Your task to perform on an android device: Search for "logitech g pro" on amazon, select the first entry, and add it to the cart. Image 0: 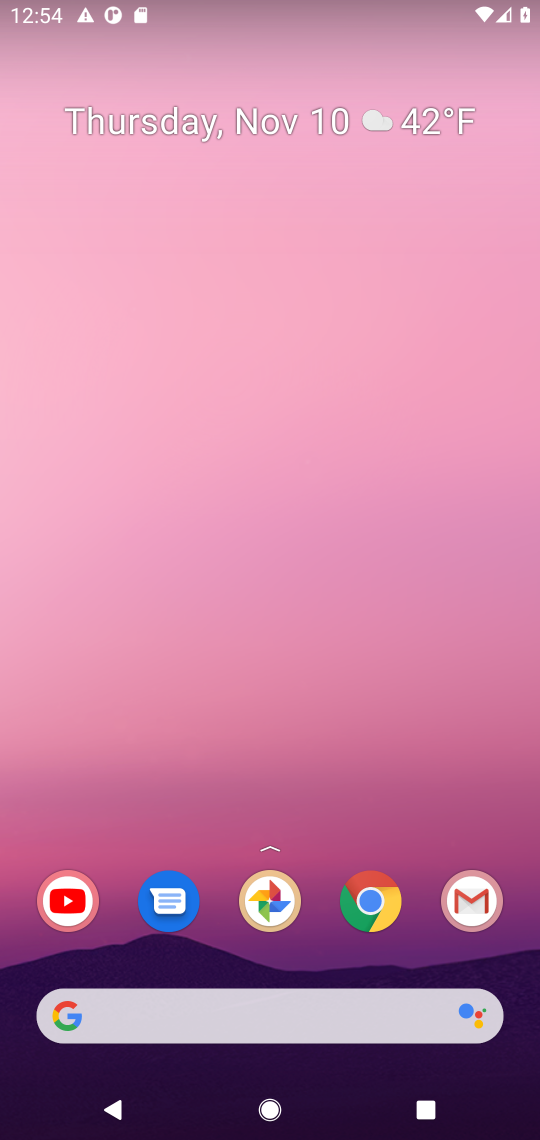
Step 0: drag from (269, 826) to (230, 78)
Your task to perform on an android device: Search for "logitech g pro" on amazon, select the first entry, and add it to the cart. Image 1: 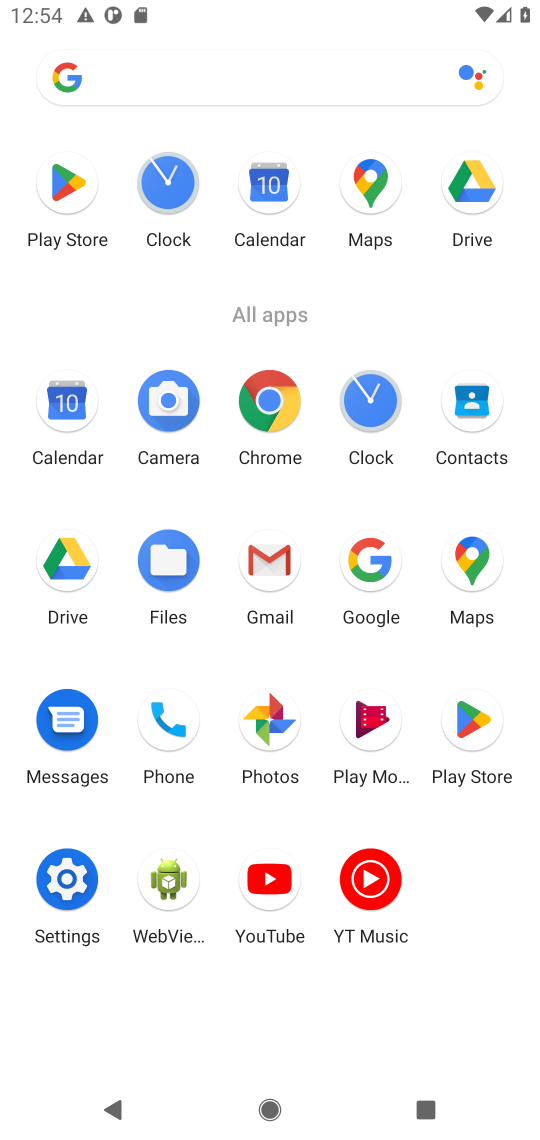
Step 1: click (264, 391)
Your task to perform on an android device: Search for "logitech g pro" on amazon, select the first entry, and add it to the cart. Image 2: 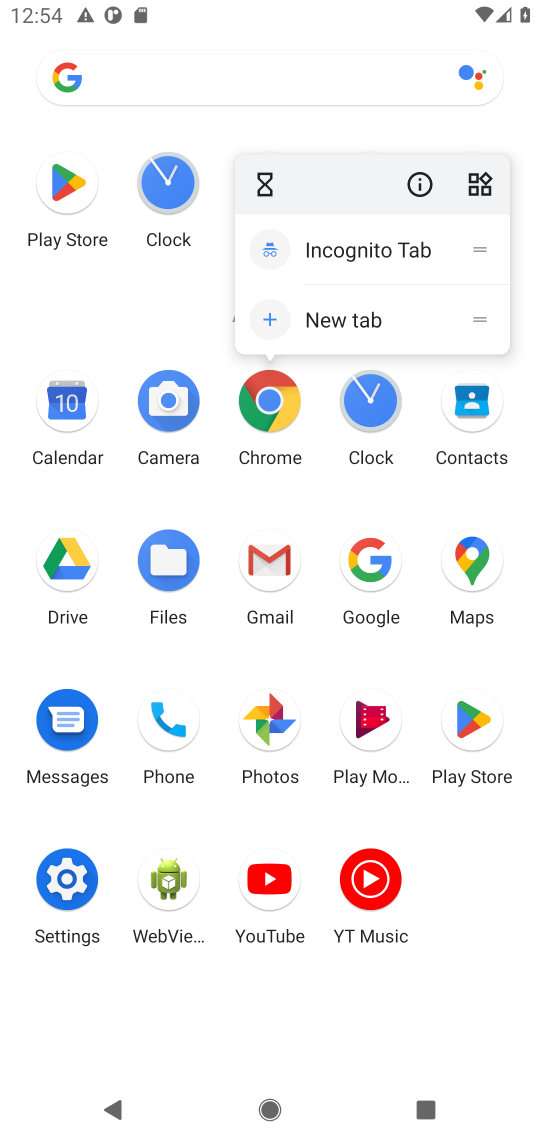
Step 2: click (272, 402)
Your task to perform on an android device: Search for "logitech g pro" on amazon, select the first entry, and add it to the cart. Image 3: 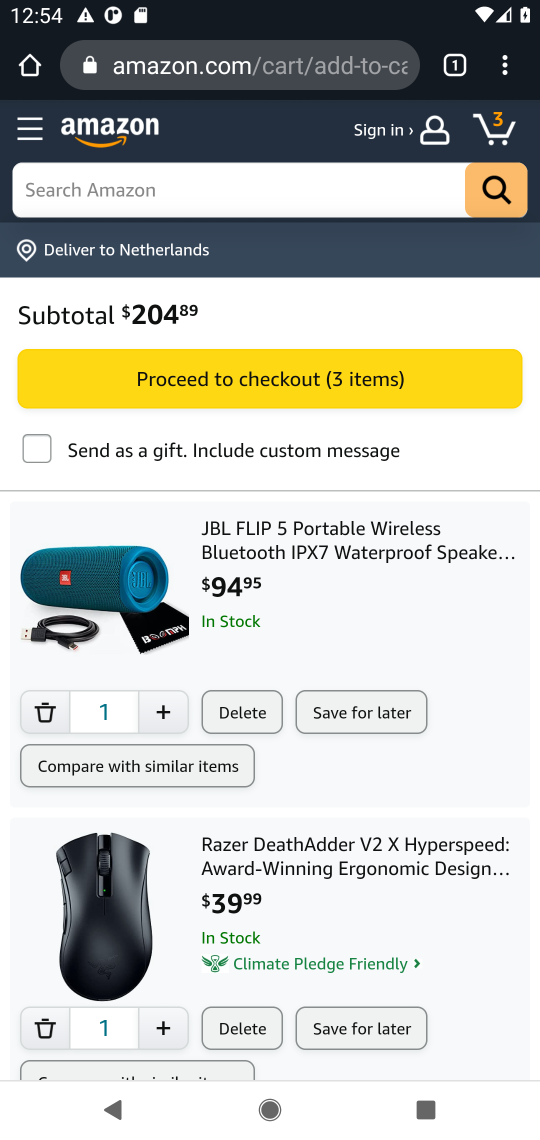
Step 3: click (208, 188)
Your task to perform on an android device: Search for "logitech g pro" on amazon, select the first entry, and add it to the cart. Image 4: 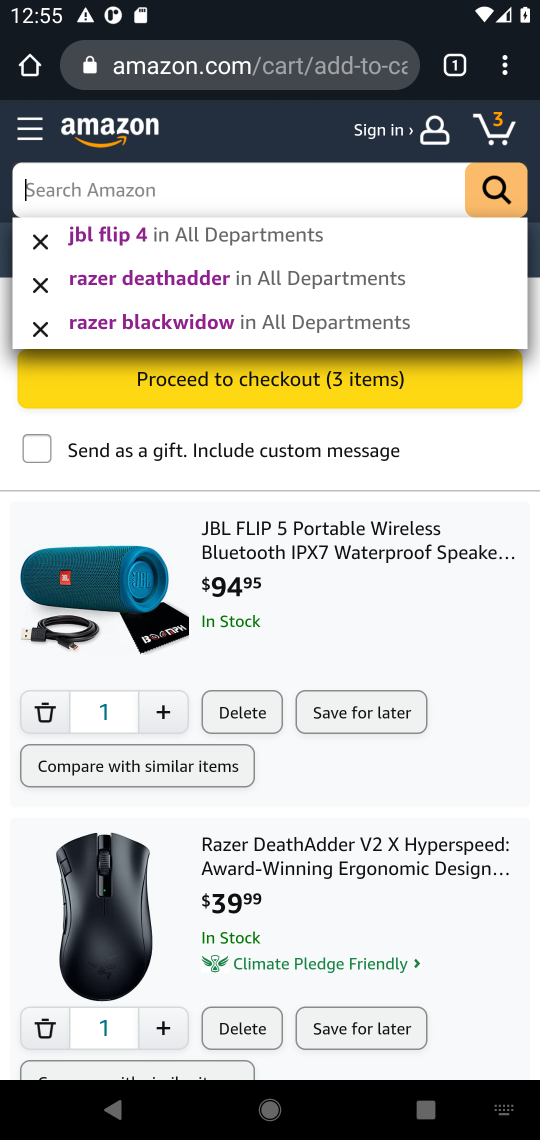
Step 4: type "logitech g pro"
Your task to perform on an android device: Search for "logitech g pro" on amazon, select the first entry, and add it to the cart. Image 5: 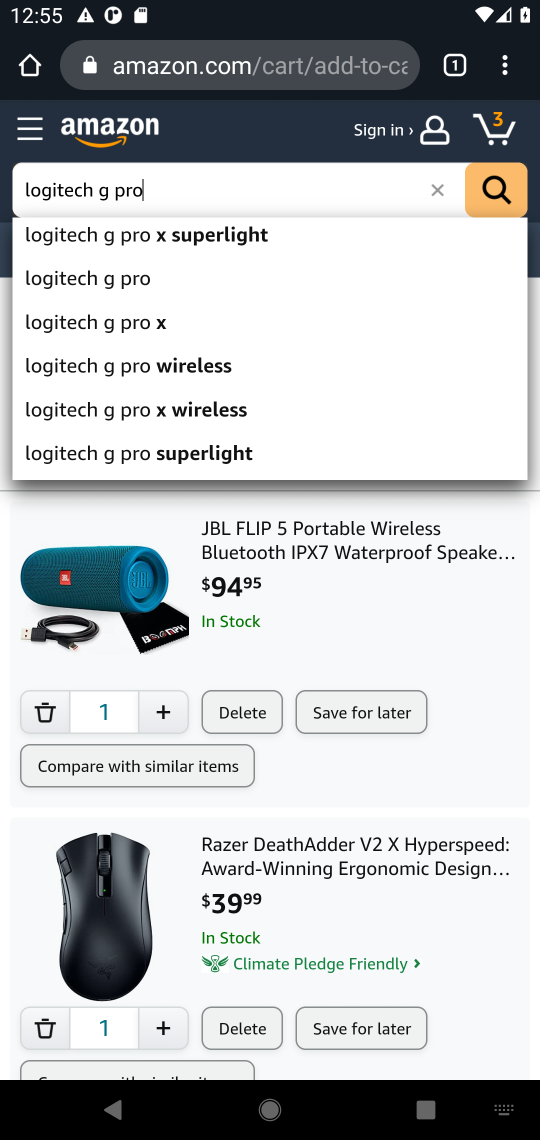
Step 5: press enter
Your task to perform on an android device: Search for "logitech g pro" on amazon, select the first entry, and add it to the cart. Image 6: 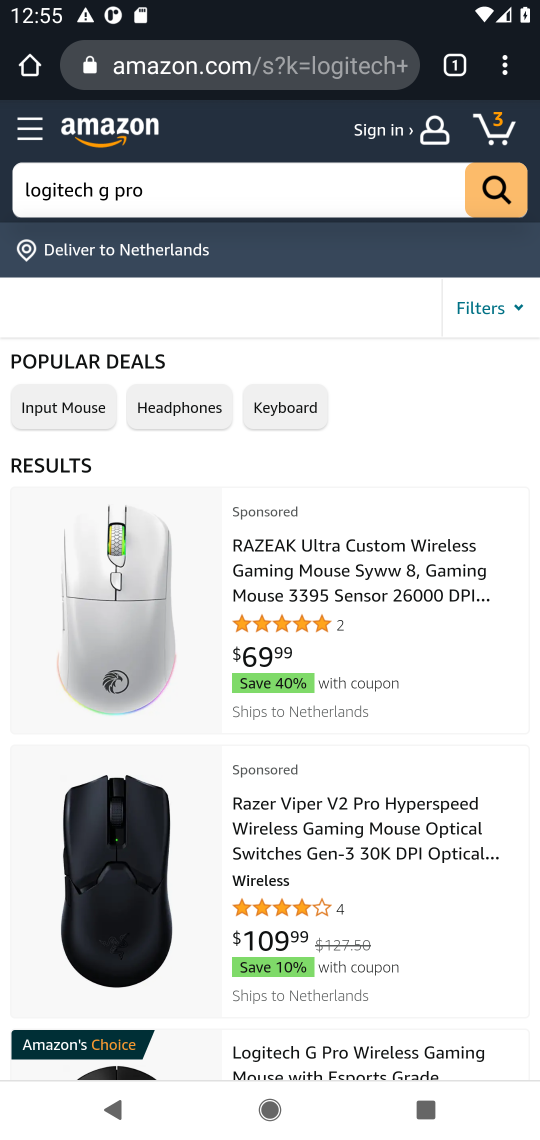
Step 6: click (260, 541)
Your task to perform on an android device: Search for "logitech g pro" on amazon, select the first entry, and add it to the cart. Image 7: 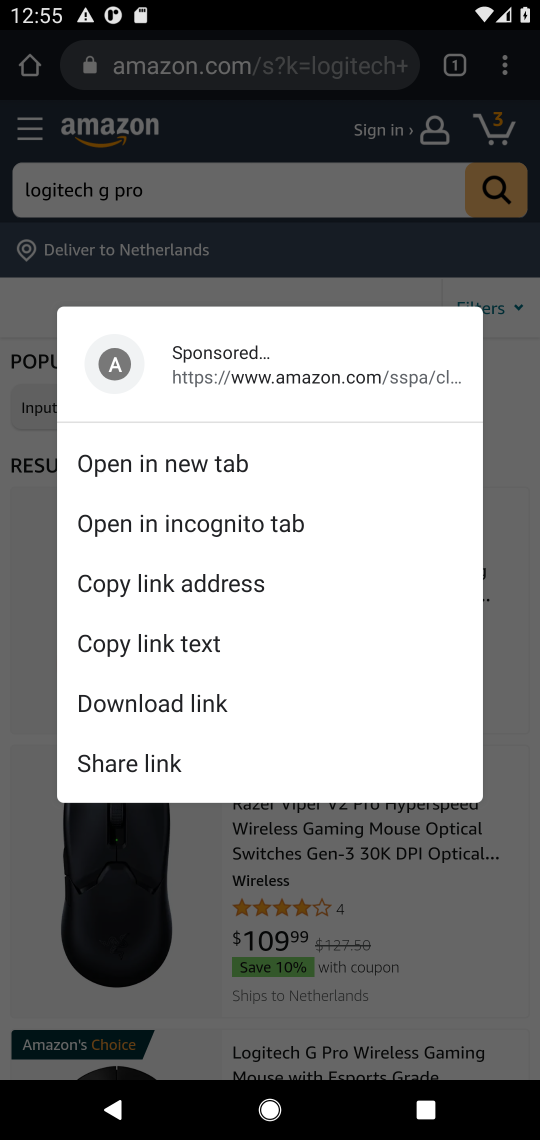
Step 7: click (17, 368)
Your task to perform on an android device: Search for "logitech g pro" on amazon, select the first entry, and add it to the cart. Image 8: 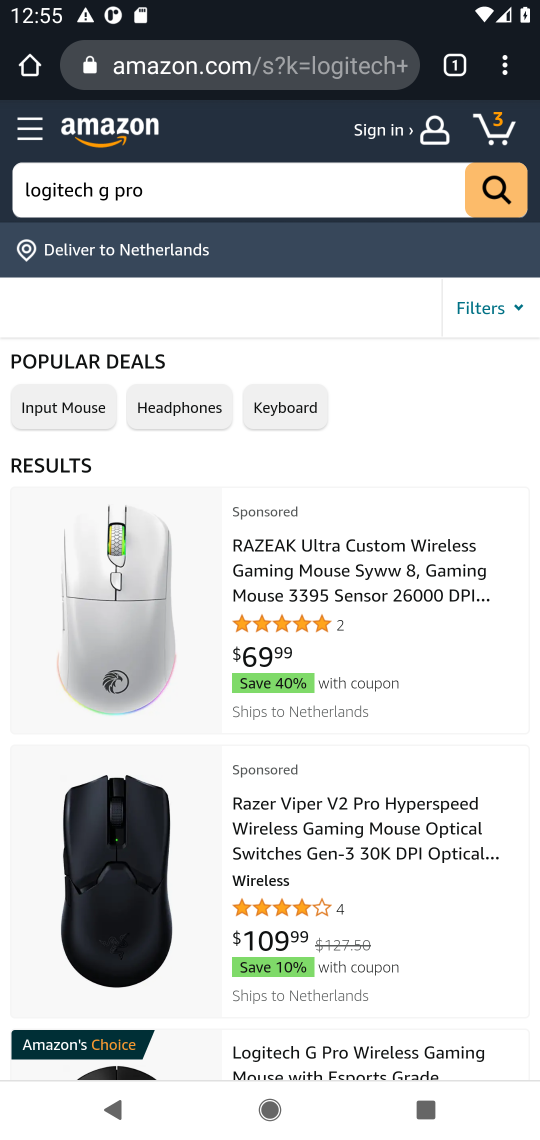
Step 8: click (360, 540)
Your task to perform on an android device: Search for "logitech g pro" on amazon, select the first entry, and add it to the cart. Image 9: 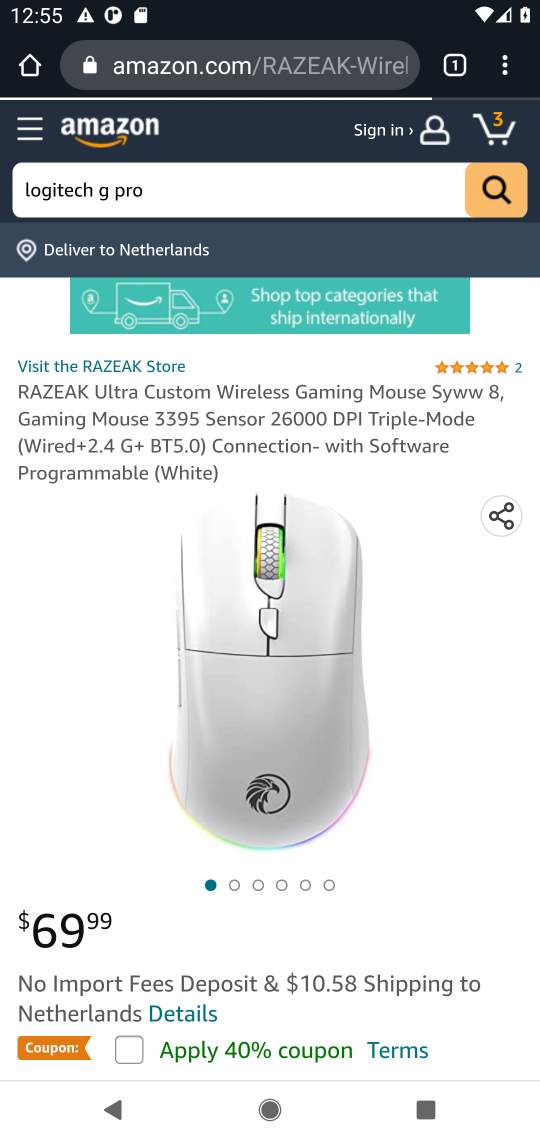
Step 9: drag from (341, 867) to (308, 440)
Your task to perform on an android device: Search for "logitech g pro" on amazon, select the first entry, and add it to the cart. Image 10: 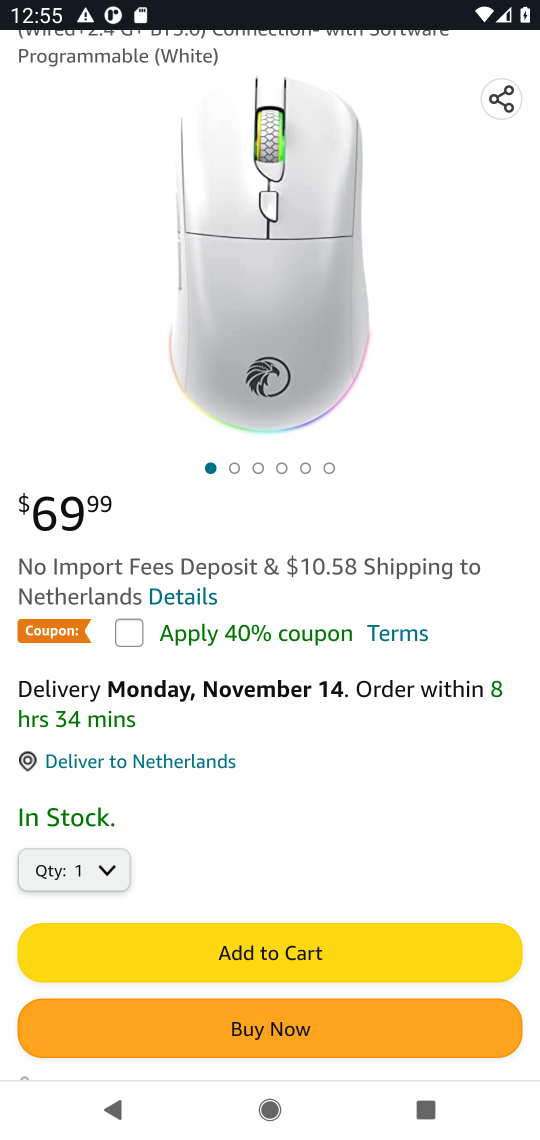
Step 10: click (233, 950)
Your task to perform on an android device: Search for "logitech g pro" on amazon, select the first entry, and add it to the cart. Image 11: 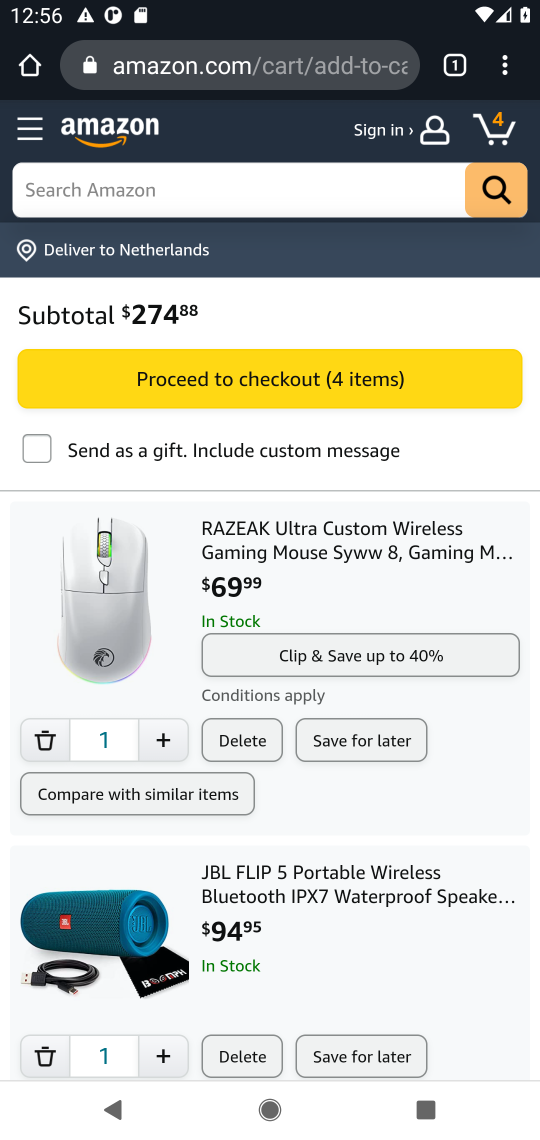
Step 11: click (86, 182)
Your task to perform on an android device: Search for "logitech g pro" on amazon, select the first entry, and add it to the cart. Image 12: 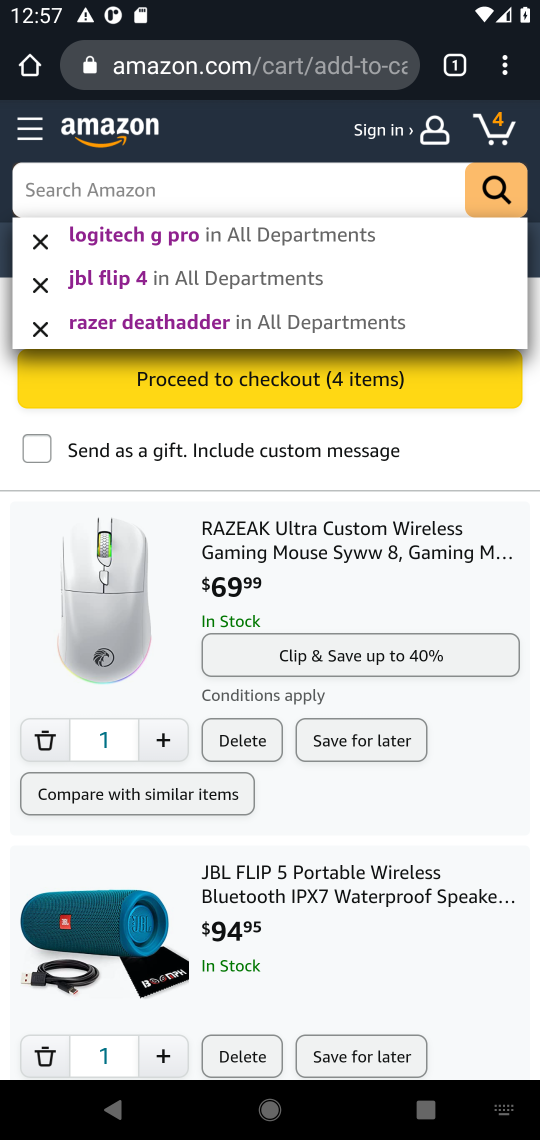
Step 12: type "logitech g pro"
Your task to perform on an android device: Search for "logitech g pro" on amazon, select the first entry, and add it to the cart. Image 13: 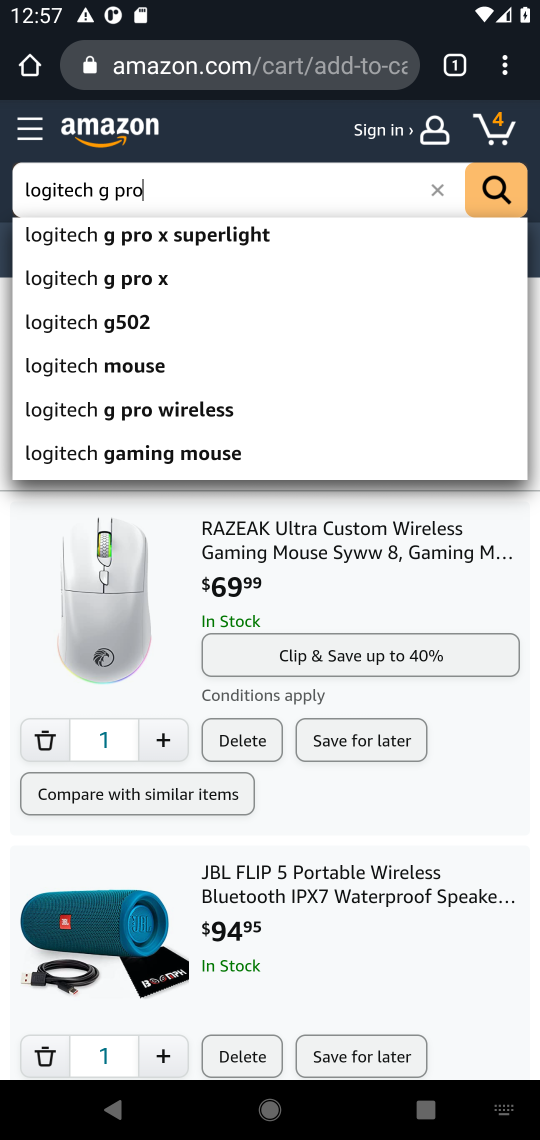
Step 13: press enter
Your task to perform on an android device: Search for "logitech g pro" on amazon, select the first entry, and add it to the cart. Image 14: 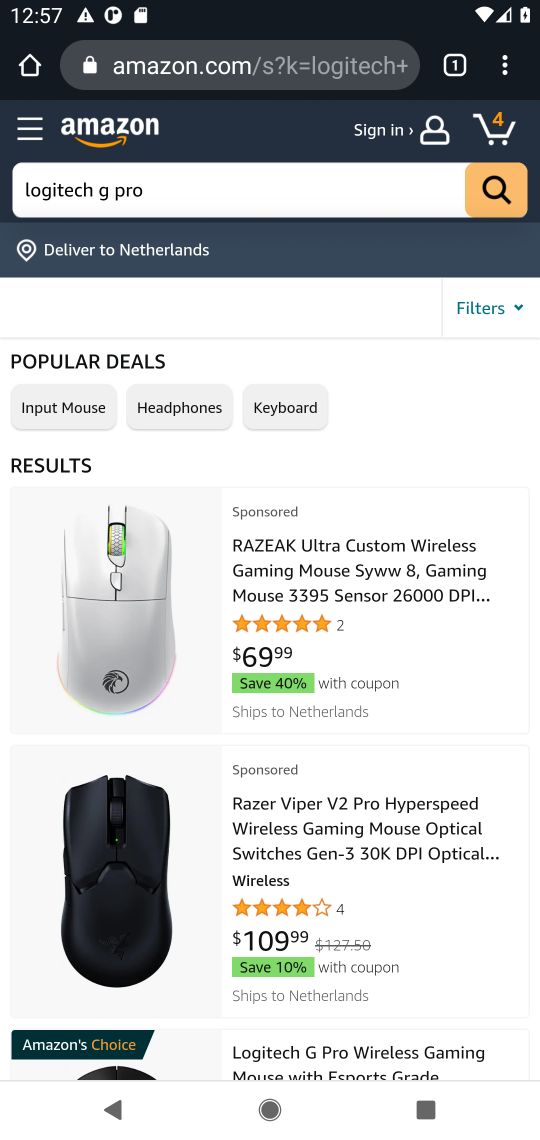
Step 14: click (221, 567)
Your task to perform on an android device: Search for "logitech g pro" on amazon, select the first entry, and add it to the cart. Image 15: 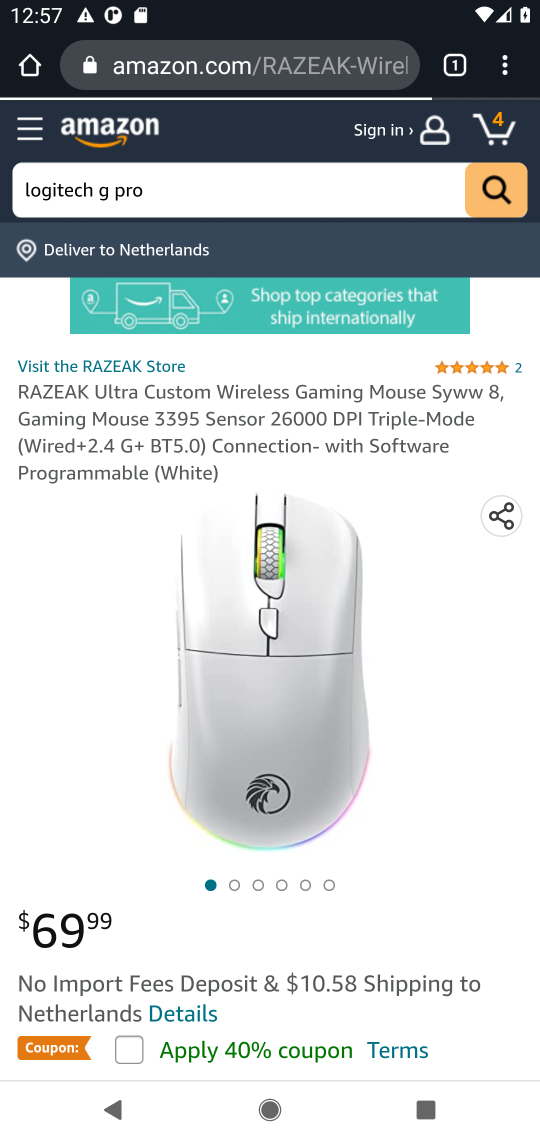
Step 15: task complete